Your task to perform on an android device: View the shopping cart on walmart. Add apple airpods pro to the cart on walmart, then select checkout. Image 0: 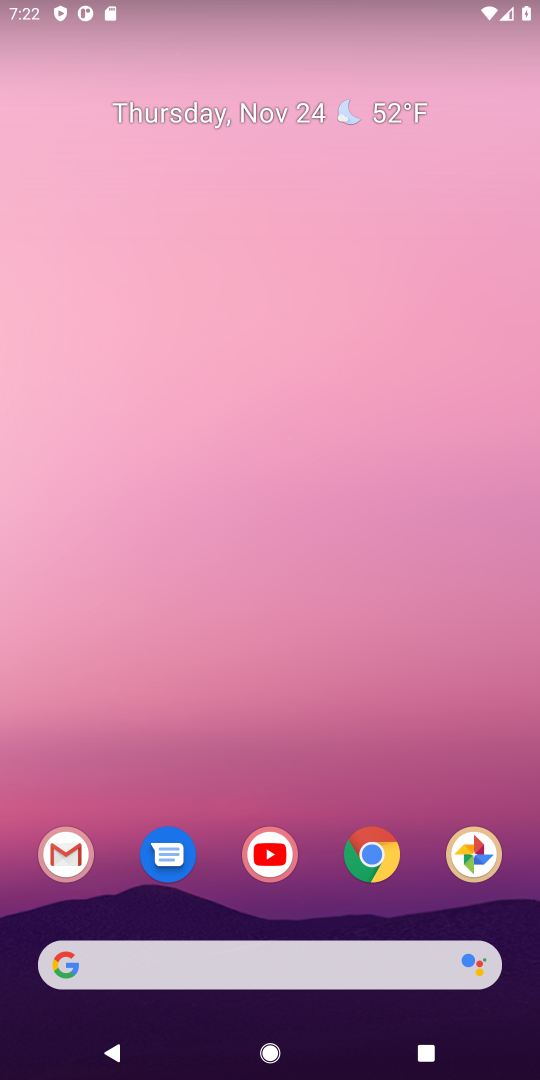
Step 0: click (379, 861)
Your task to perform on an android device: View the shopping cart on walmart. Add apple airpods pro to the cart on walmart, then select checkout. Image 1: 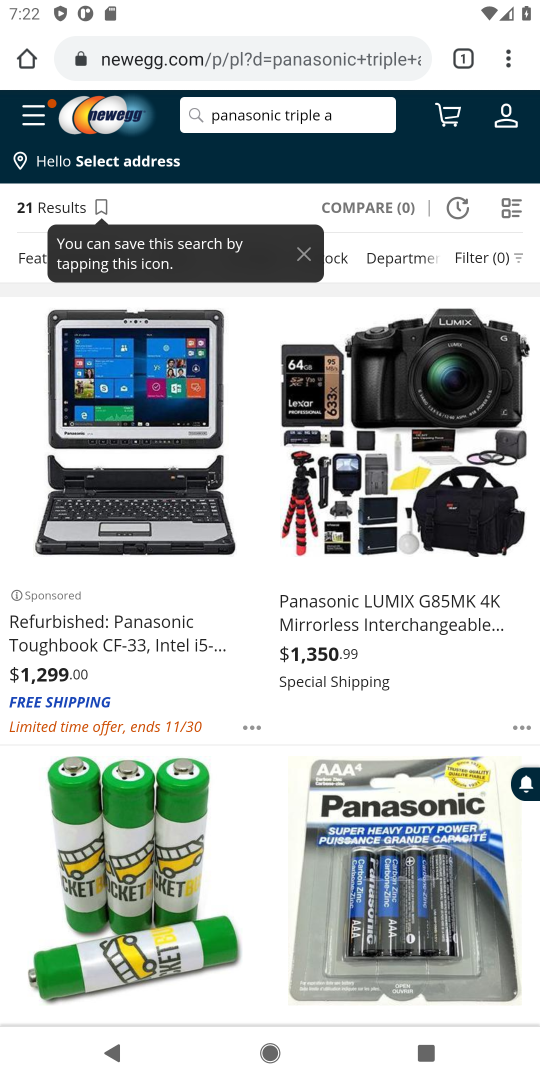
Step 1: click (199, 52)
Your task to perform on an android device: View the shopping cart on walmart. Add apple airpods pro to the cart on walmart, then select checkout. Image 2: 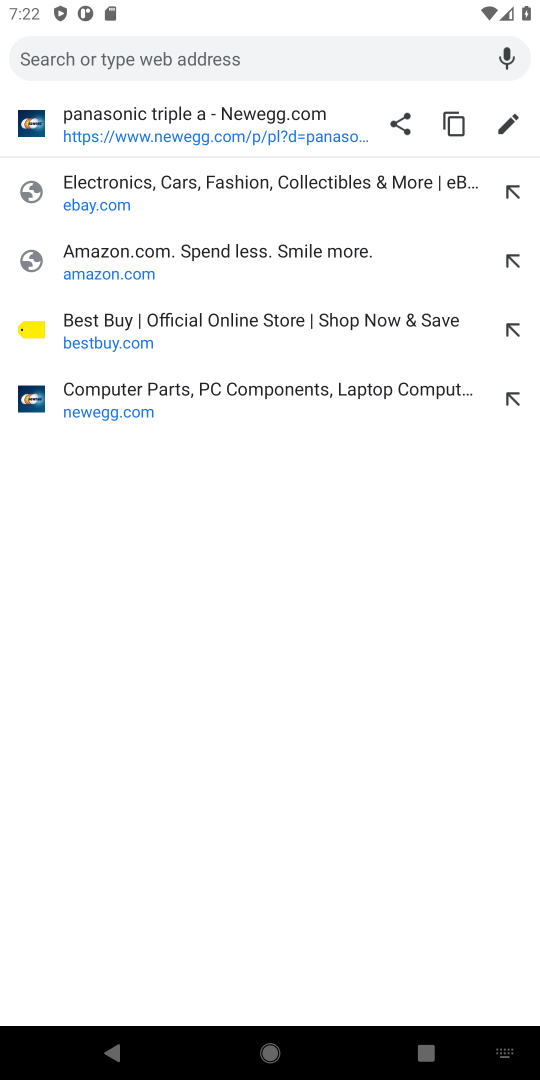
Step 2: type "walmart.com"
Your task to perform on an android device: View the shopping cart on walmart. Add apple airpods pro to the cart on walmart, then select checkout. Image 3: 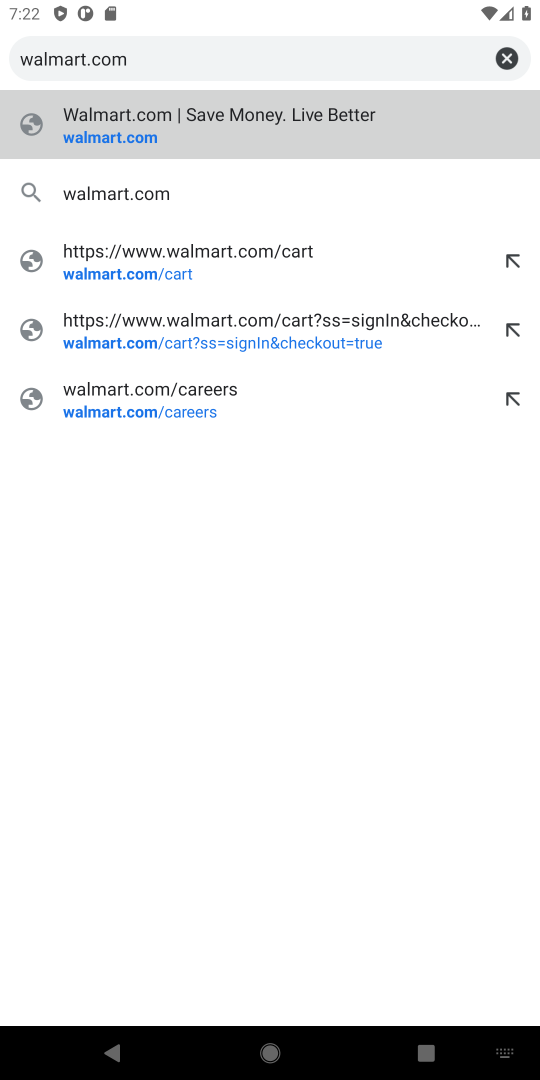
Step 3: click (105, 145)
Your task to perform on an android device: View the shopping cart on walmart. Add apple airpods pro to the cart on walmart, then select checkout. Image 4: 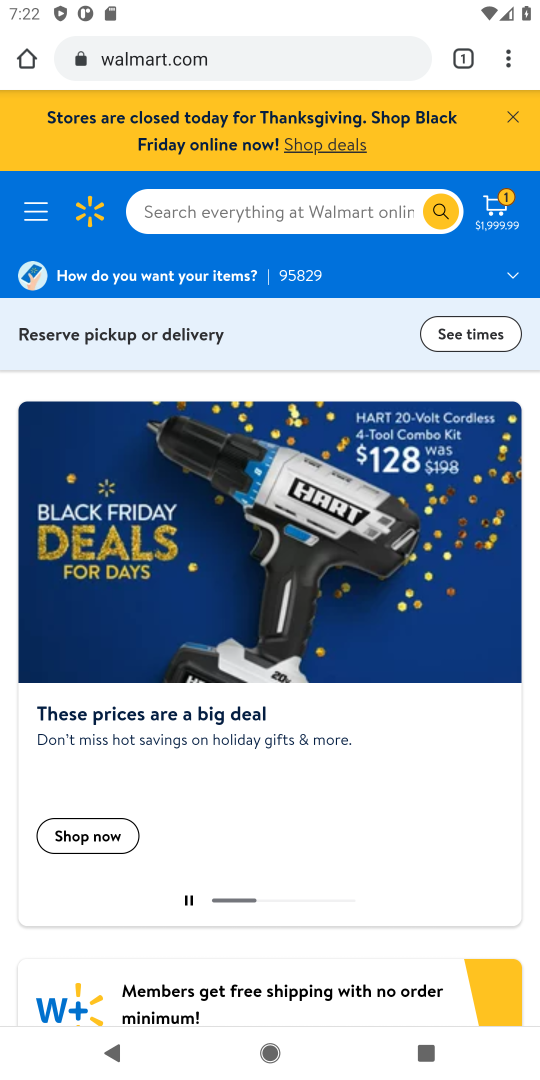
Step 4: click (505, 226)
Your task to perform on an android device: View the shopping cart on walmart. Add apple airpods pro to the cart on walmart, then select checkout. Image 5: 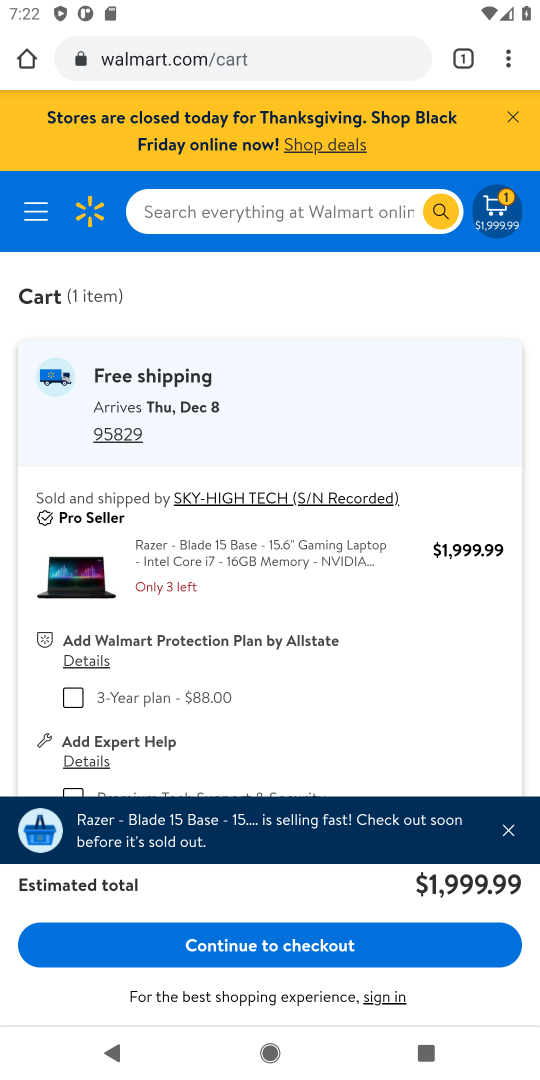
Step 5: drag from (252, 696) to (277, 372)
Your task to perform on an android device: View the shopping cart on walmart. Add apple airpods pro to the cart on walmart, then select checkout. Image 6: 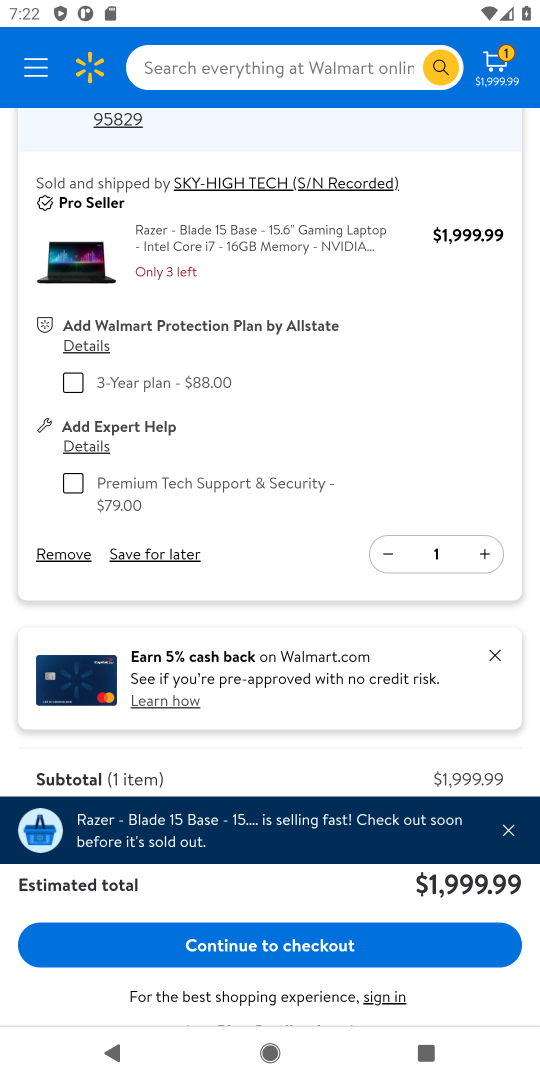
Step 6: click (274, 67)
Your task to perform on an android device: View the shopping cart on walmart. Add apple airpods pro to the cart on walmart, then select checkout. Image 7: 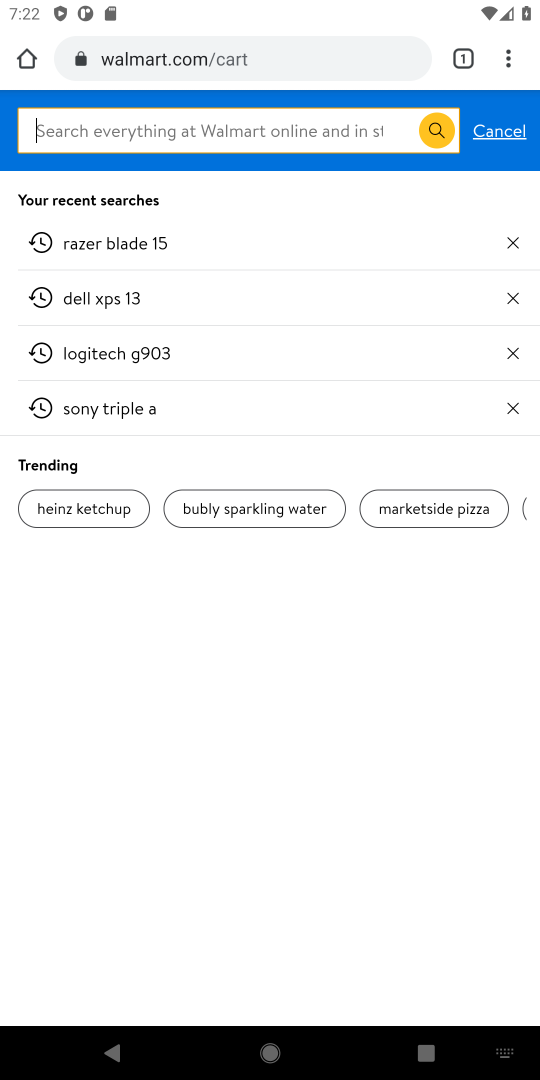
Step 7: type "apple airpods pro"
Your task to perform on an android device: View the shopping cart on walmart. Add apple airpods pro to the cart on walmart, then select checkout. Image 8: 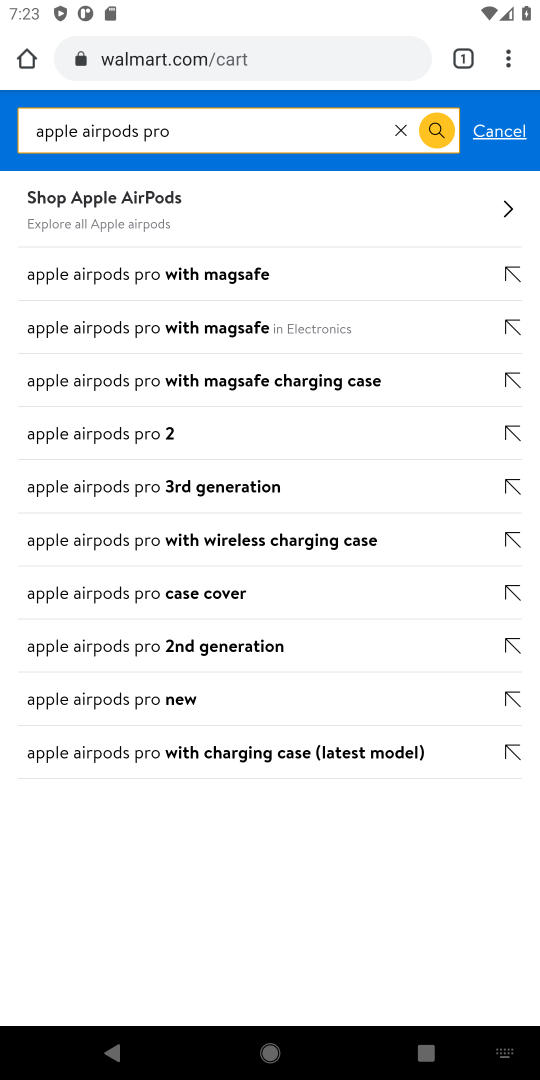
Step 8: click (87, 700)
Your task to perform on an android device: View the shopping cart on walmart. Add apple airpods pro to the cart on walmart, then select checkout. Image 9: 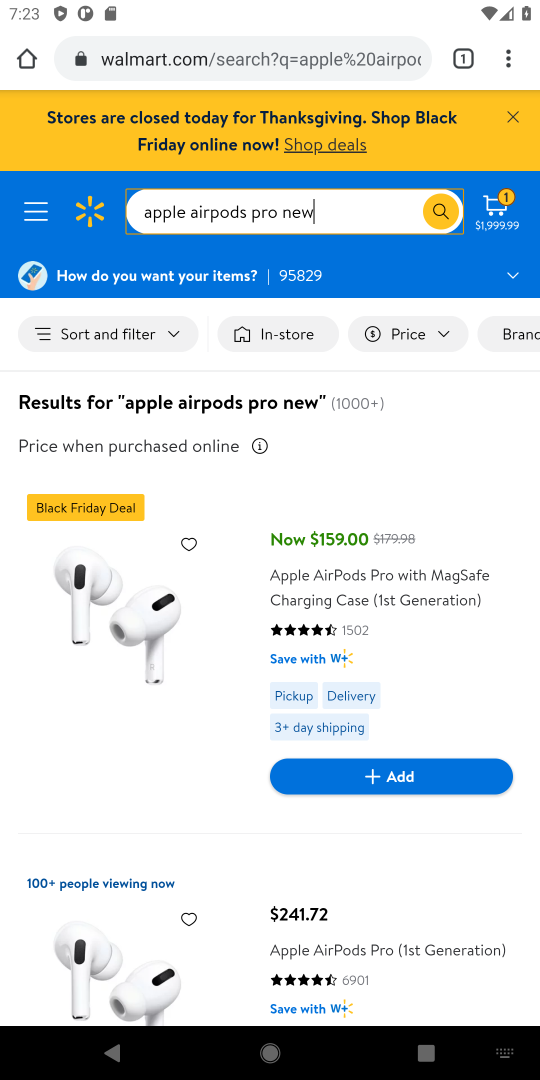
Step 9: click (357, 781)
Your task to perform on an android device: View the shopping cart on walmart. Add apple airpods pro to the cart on walmart, then select checkout. Image 10: 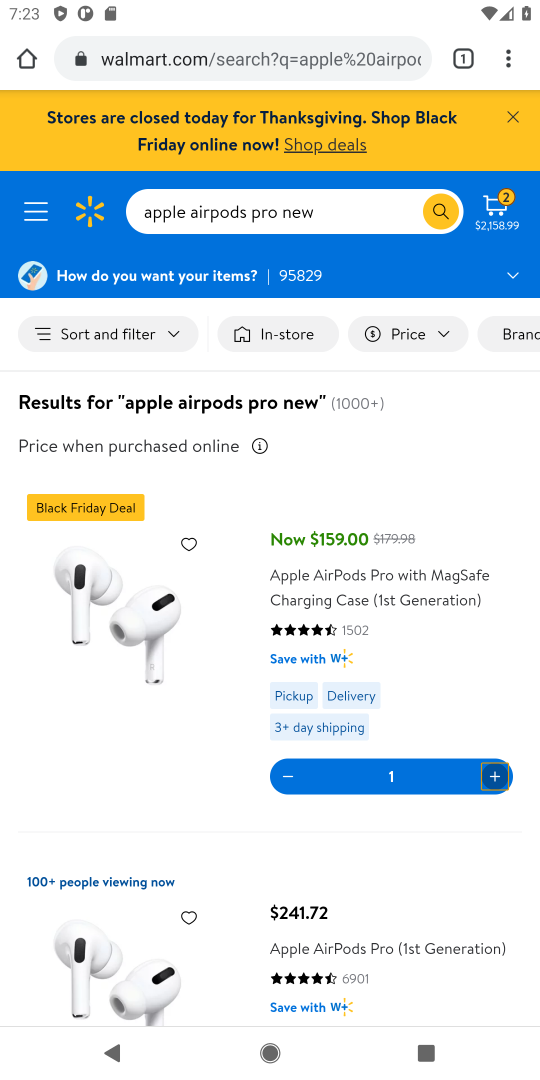
Step 10: click (502, 218)
Your task to perform on an android device: View the shopping cart on walmart. Add apple airpods pro to the cart on walmart, then select checkout. Image 11: 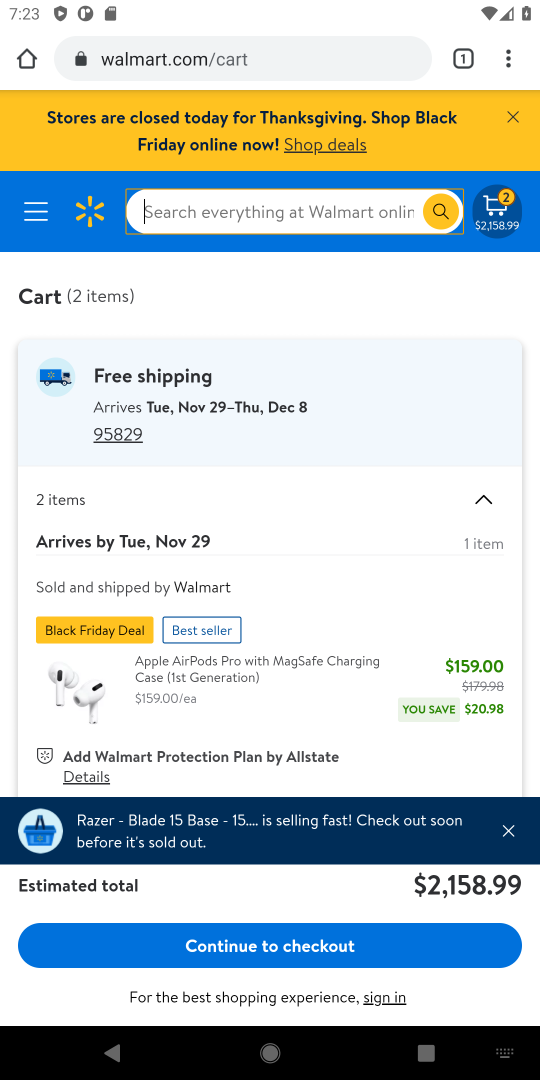
Step 11: click (286, 966)
Your task to perform on an android device: View the shopping cart on walmart. Add apple airpods pro to the cart on walmart, then select checkout. Image 12: 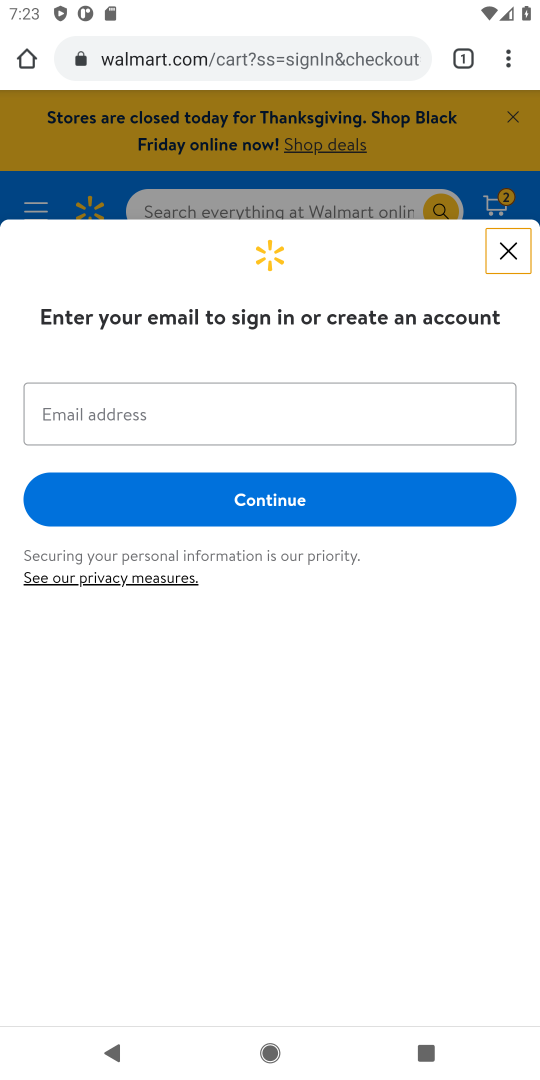
Step 12: task complete